Your task to perform on an android device: Clear the cart on amazon. Add "usb-c to usb-a" to the cart on amazon Image 0: 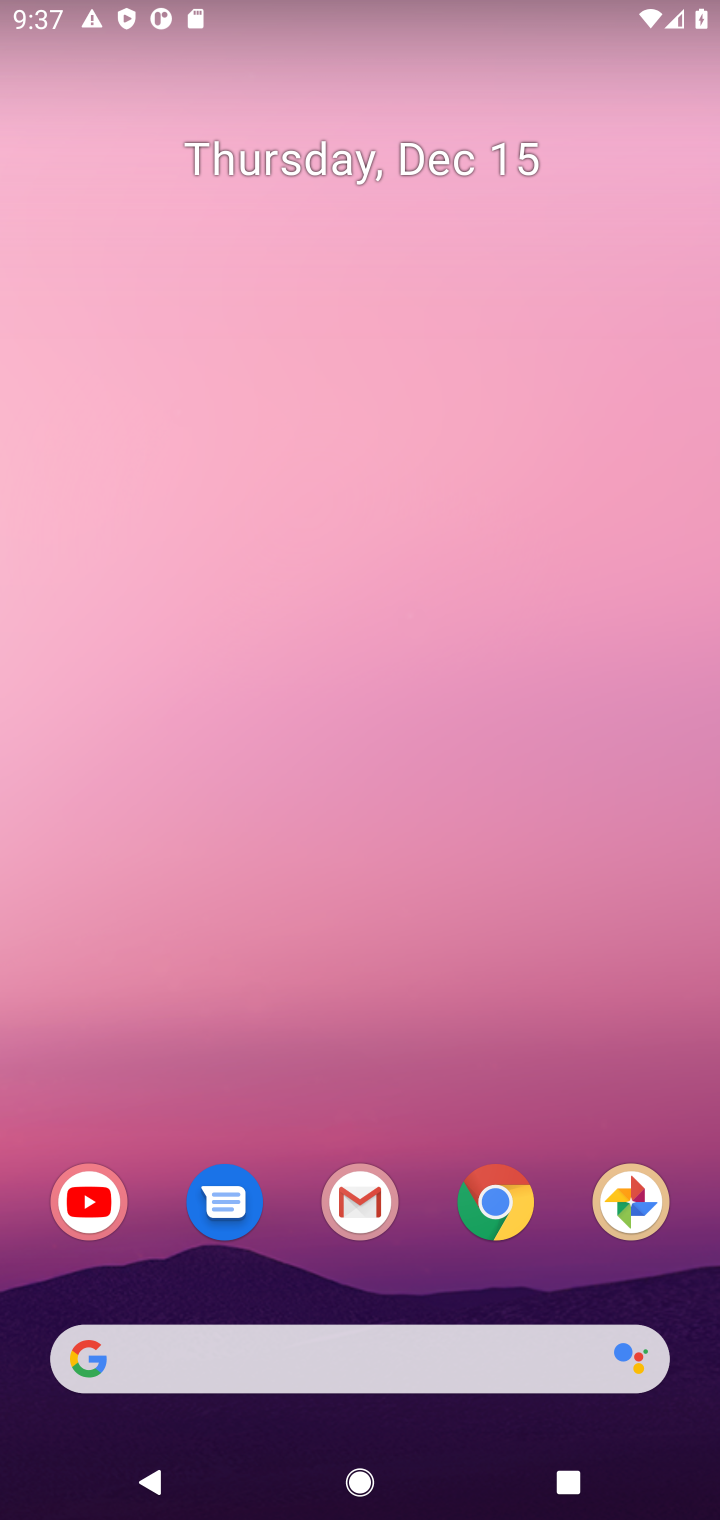
Step 0: click (496, 1209)
Your task to perform on an android device: Clear the cart on amazon. Add "usb-c to usb-a" to the cart on amazon Image 1: 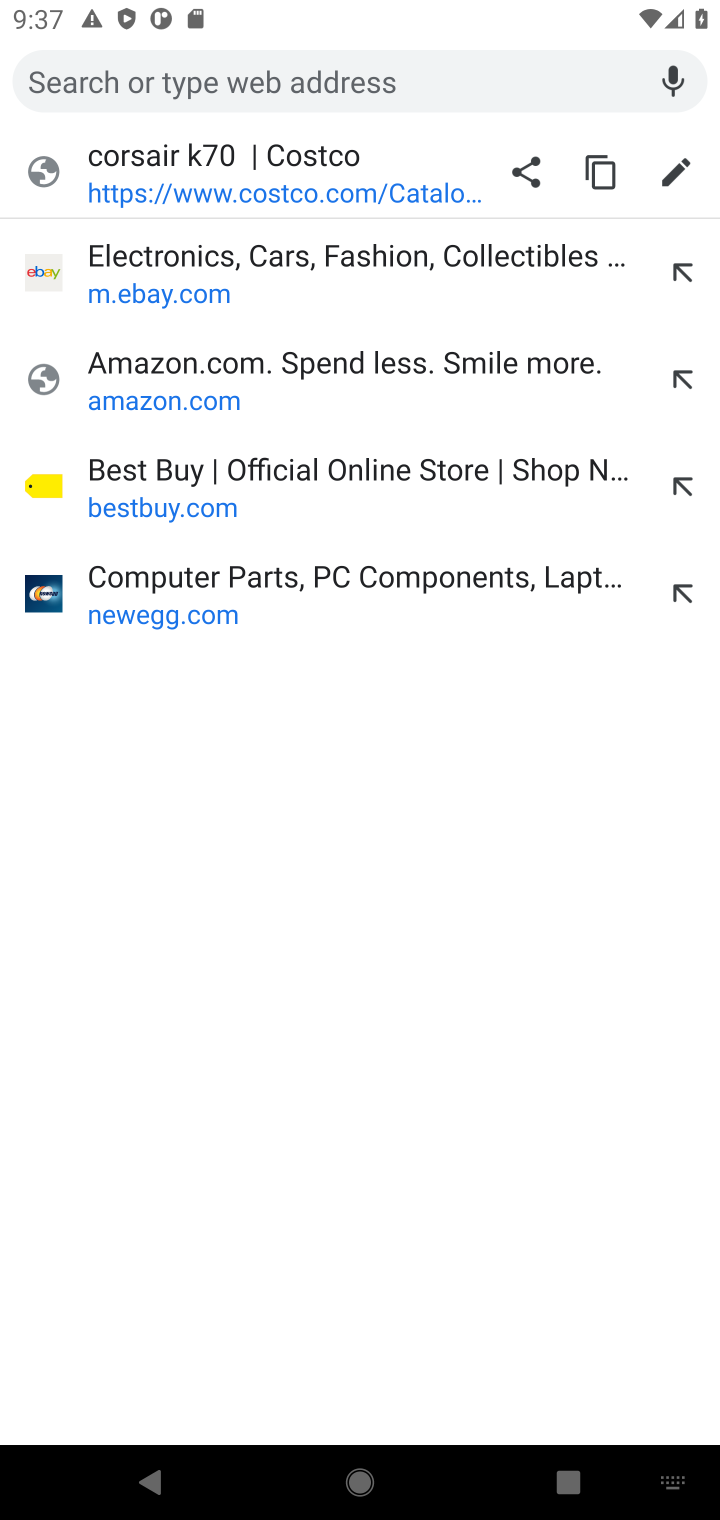
Step 1: click (139, 382)
Your task to perform on an android device: Clear the cart on amazon. Add "usb-c to usb-a" to the cart on amazon Image 2: 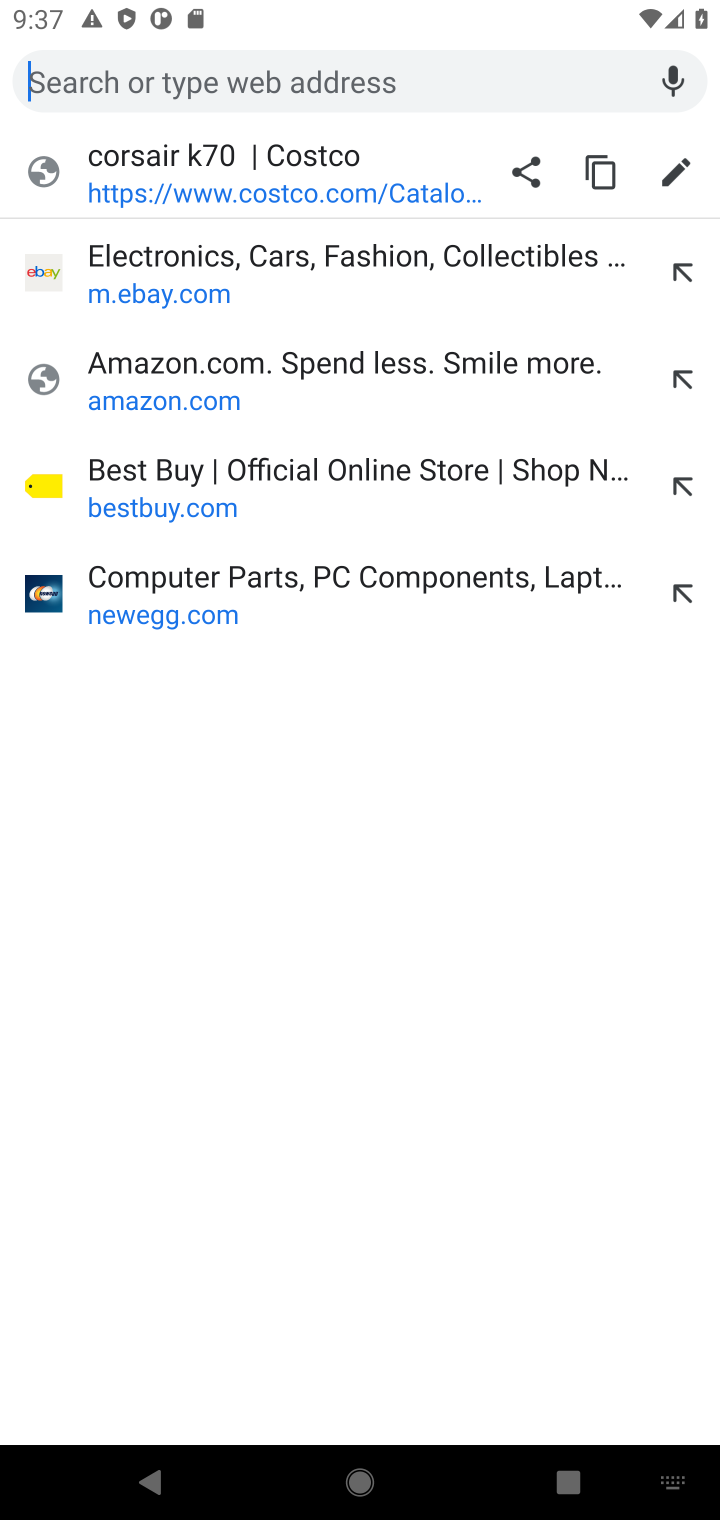
Step 2: click (141, 403)
Your task to perform on an android device: Clear the cart on amazon. Add "usb-c to usb-a" to the cart on amazon Image 3: 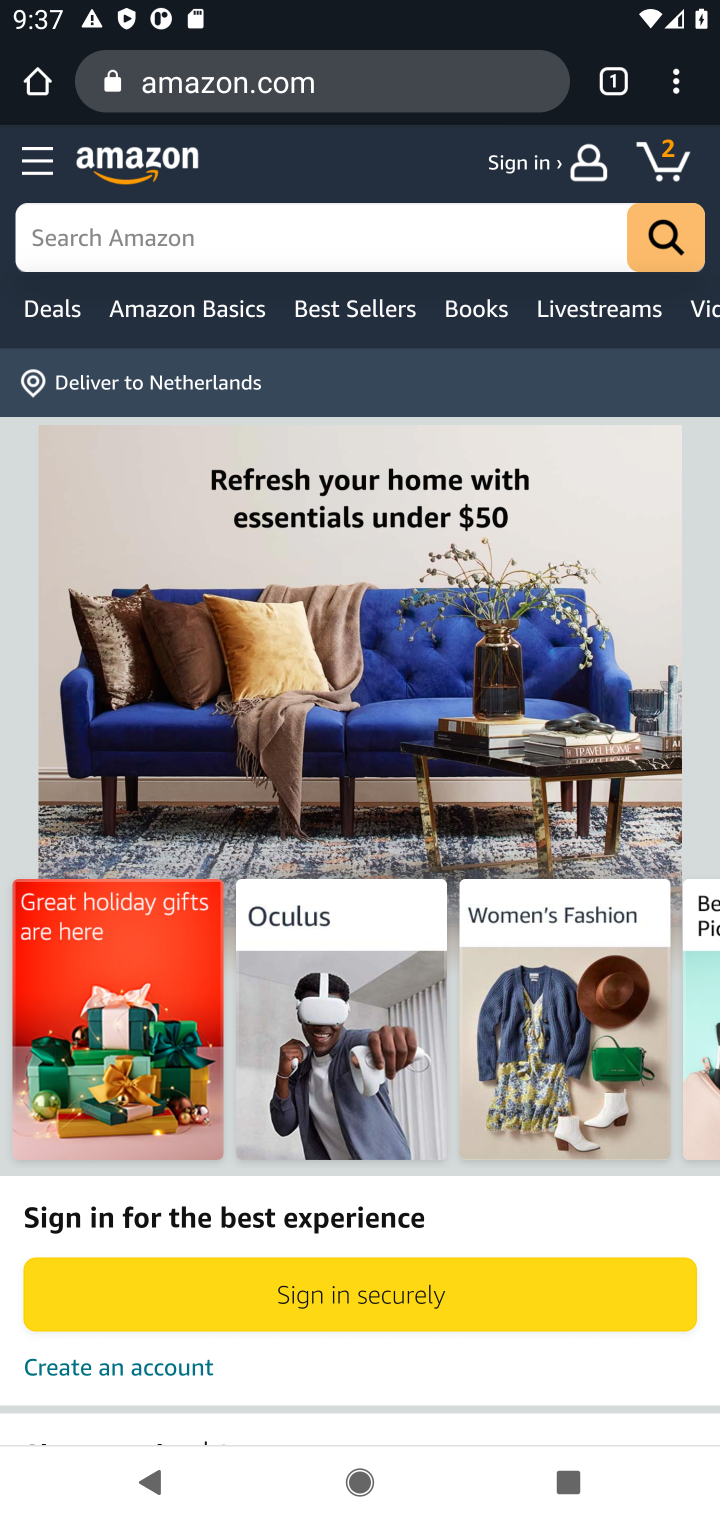
Step 3: click (660, 152)
Your task to perform on an android device: Clear the cart on amazon. Add "usb-c to usb-a" to the cart on amazon Image 4: 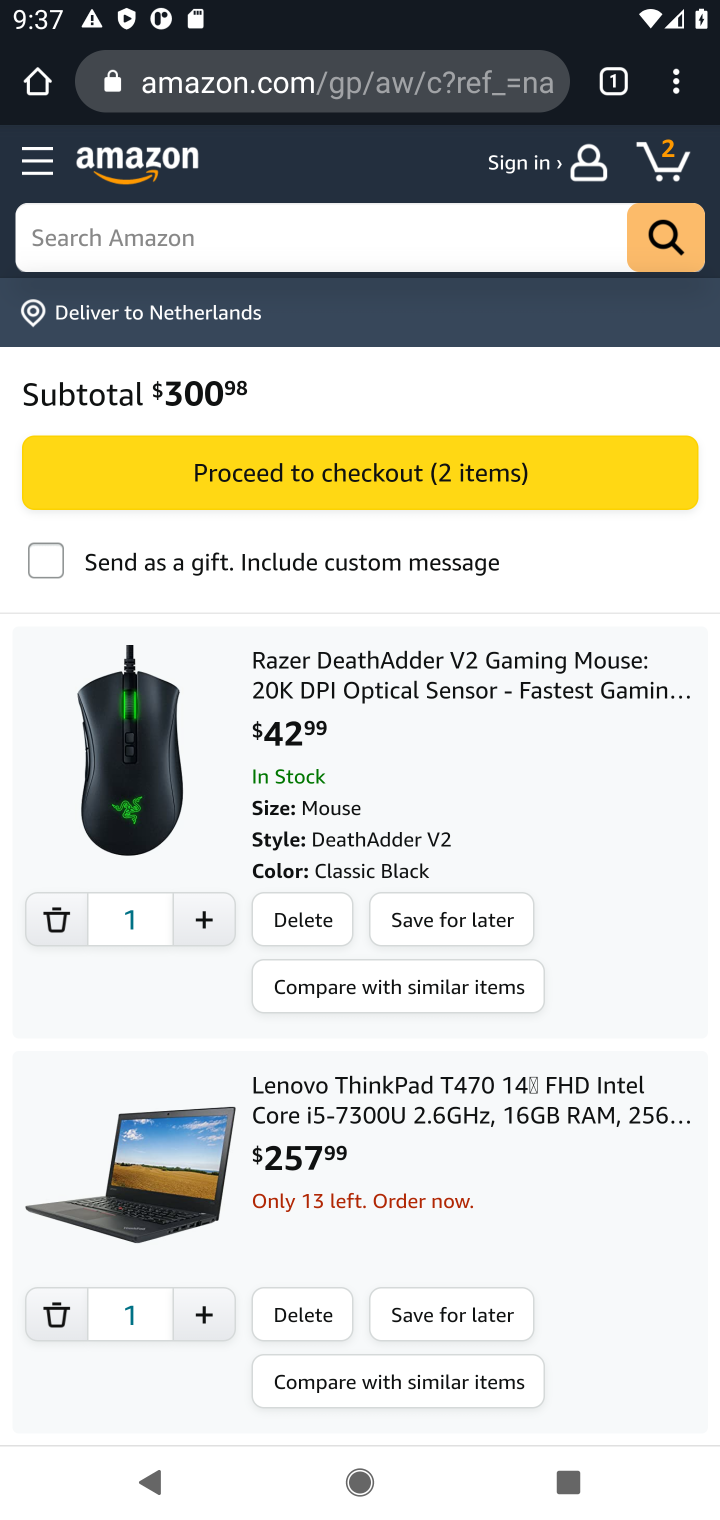
Step 4: click (315, 915)
Your task to perform on an android device: Clear the cart on amazon. Add "usb-c to usb-a" to the cart on amazon Image 5: 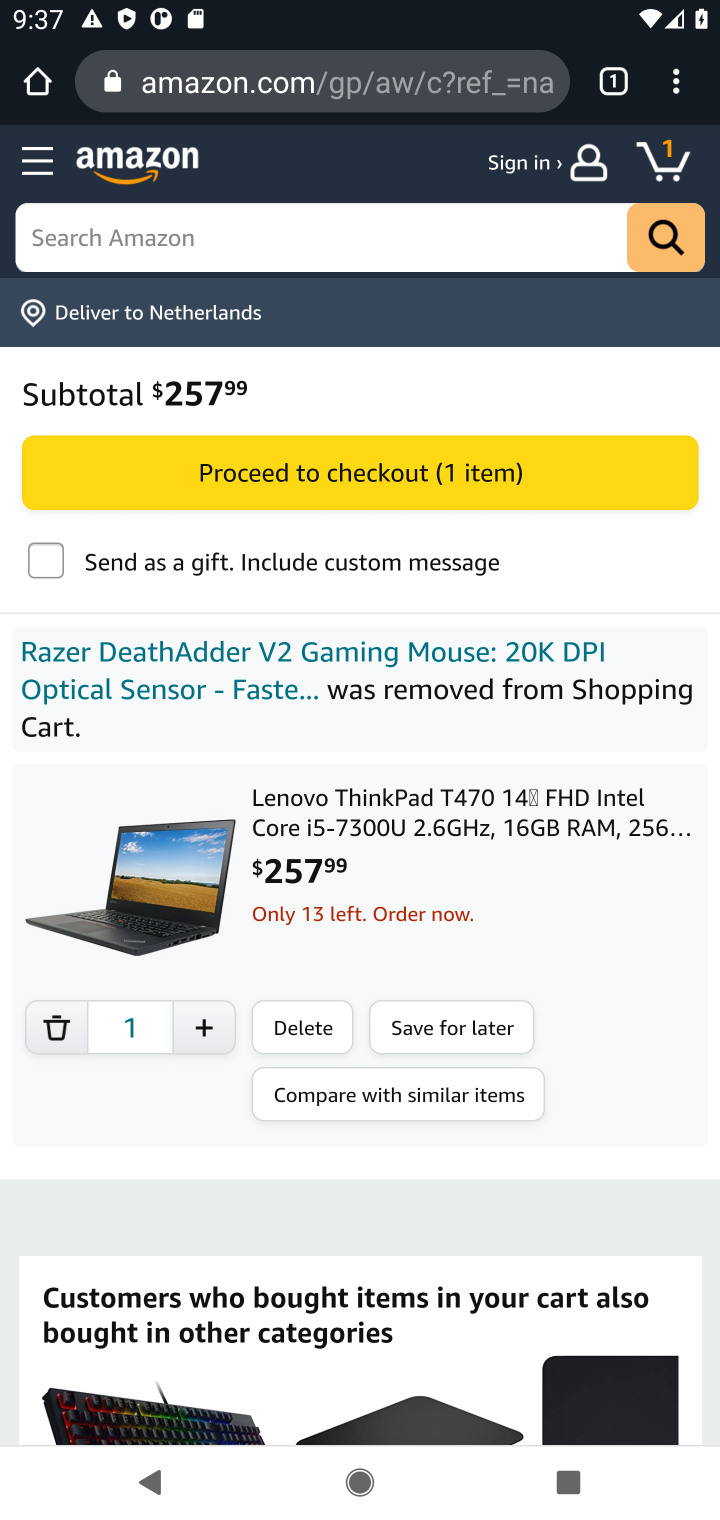
Step 5: click (304, 1022)
Your task to perform on an android device: Clear the cart on amazon. Add "usb-c to usb-a" to the cart on amazon Image 6: 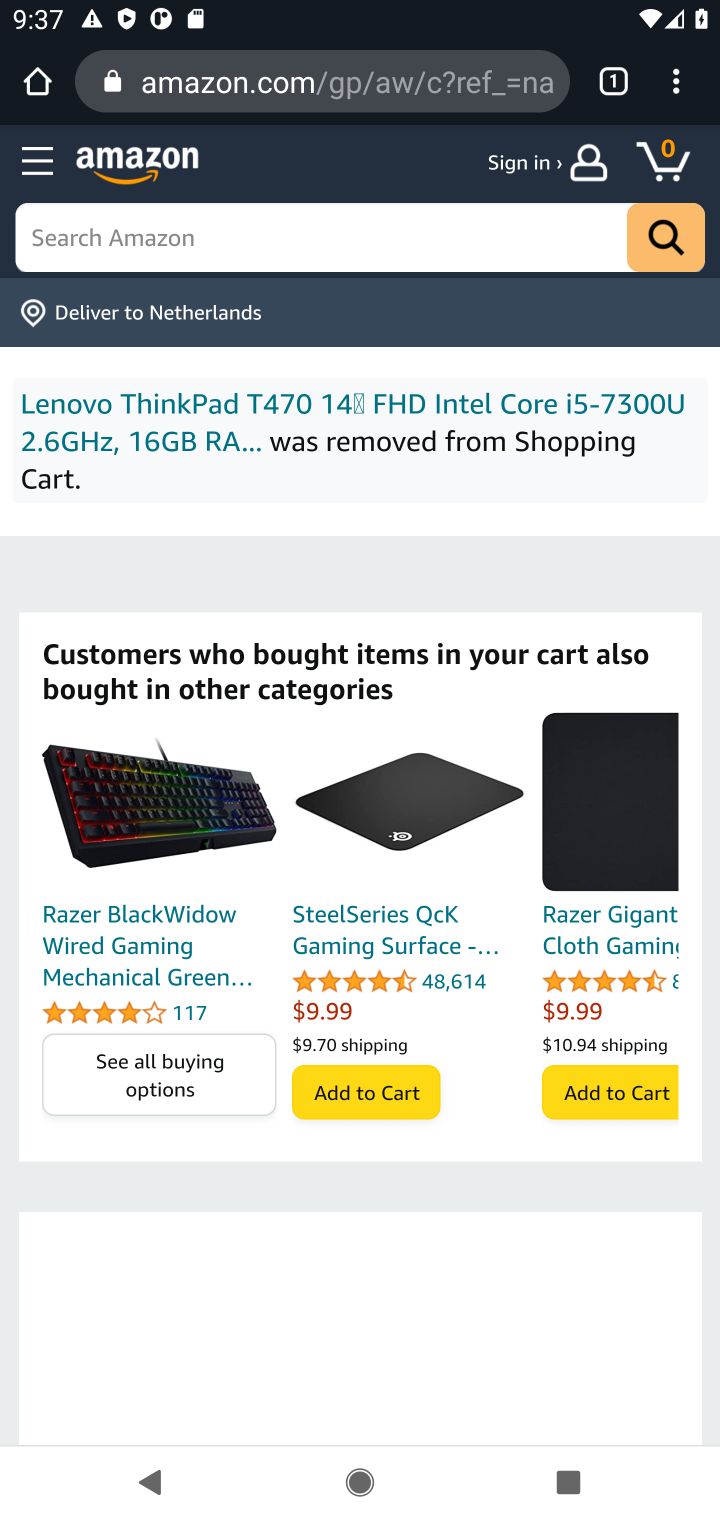
Step 6: click (269, 252)
Your task to perform on an android device: Clear the cart on amazon. Add "usb-c to usb-a" to the cart on amazon Image 7: 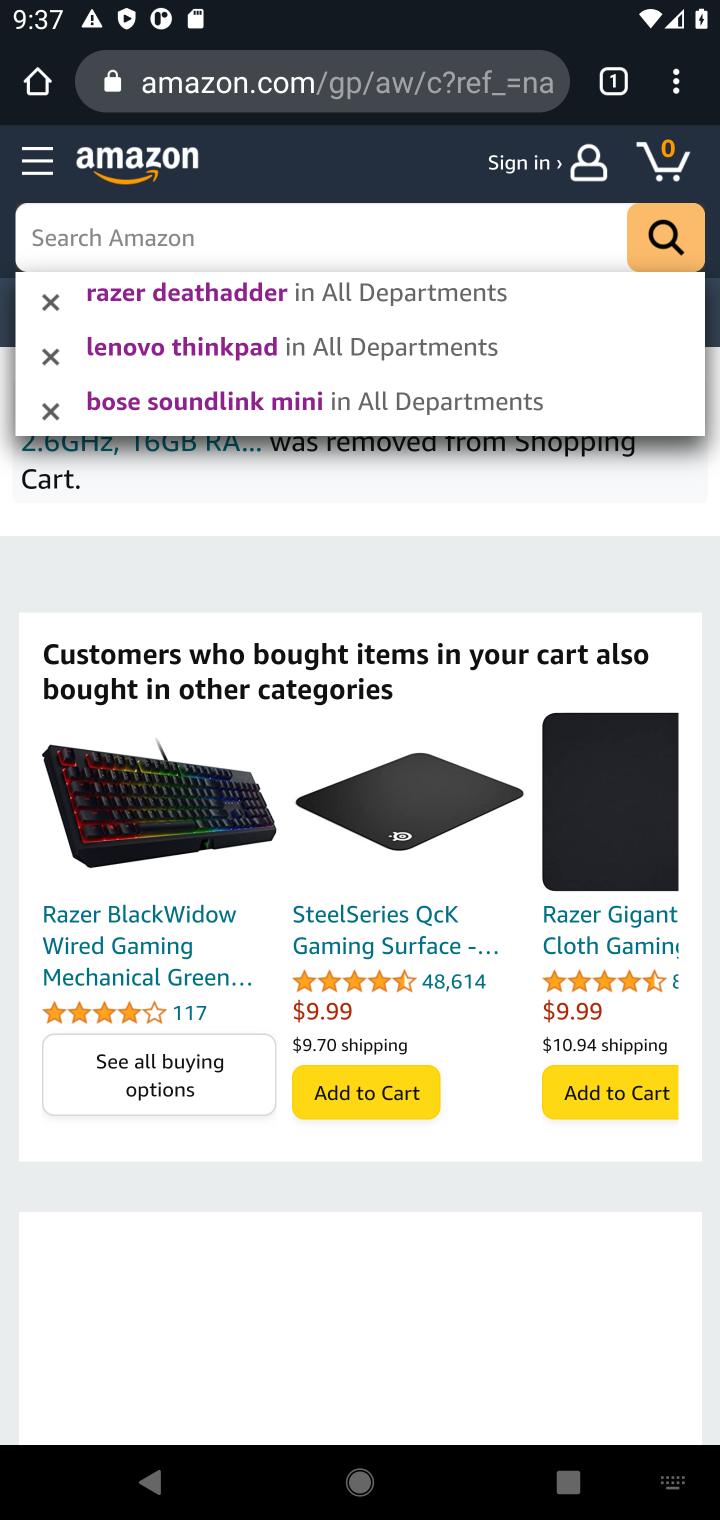
Step 7: type "usb-c to usb-a"
Your task to perform on an android device: Clear the cart on amazon. Add "usb-c to usb-a" to the cart on amazon Image 8: 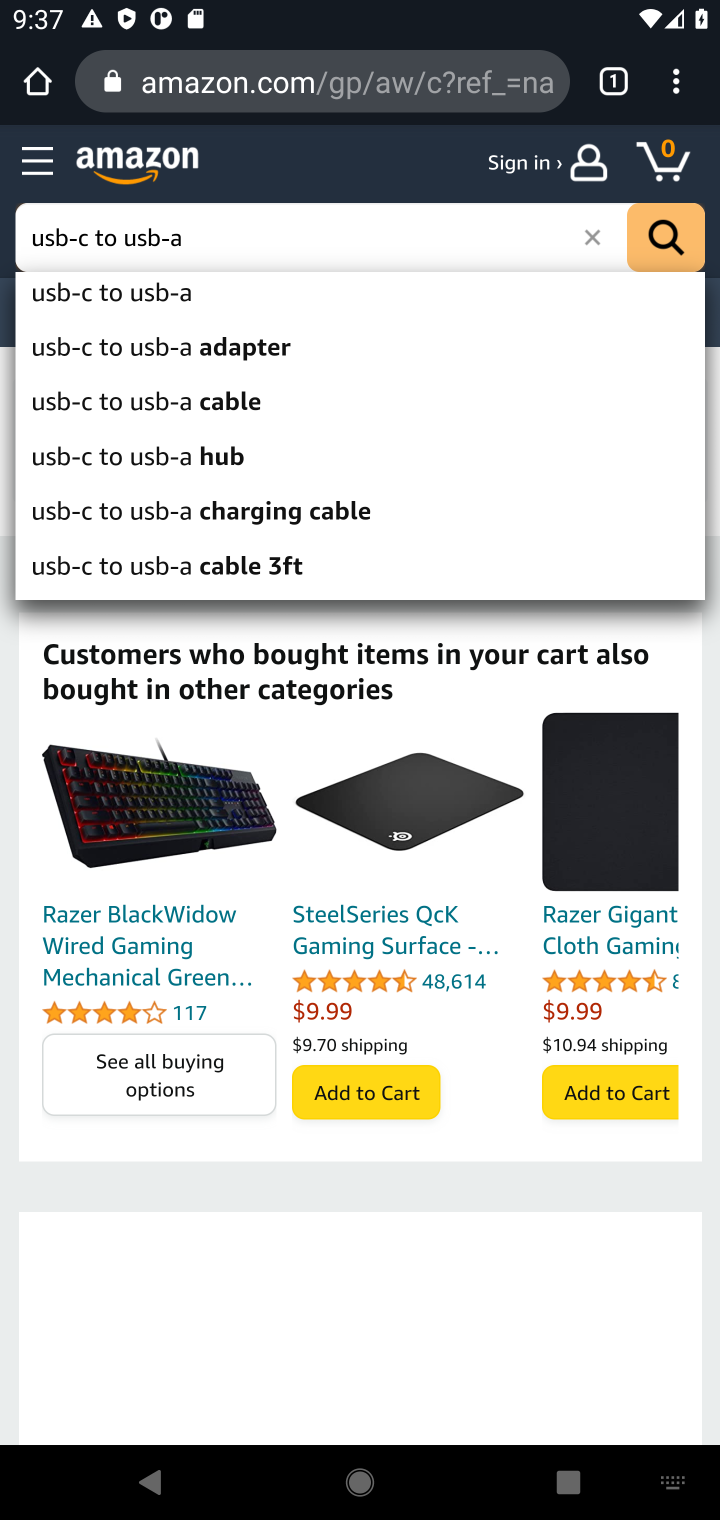
Step 8: click (113, 297)
Your task to perform on an android device: Clear the cart on amazon. Add "usb-c to usb-a" to the cart on amazon Image 9: 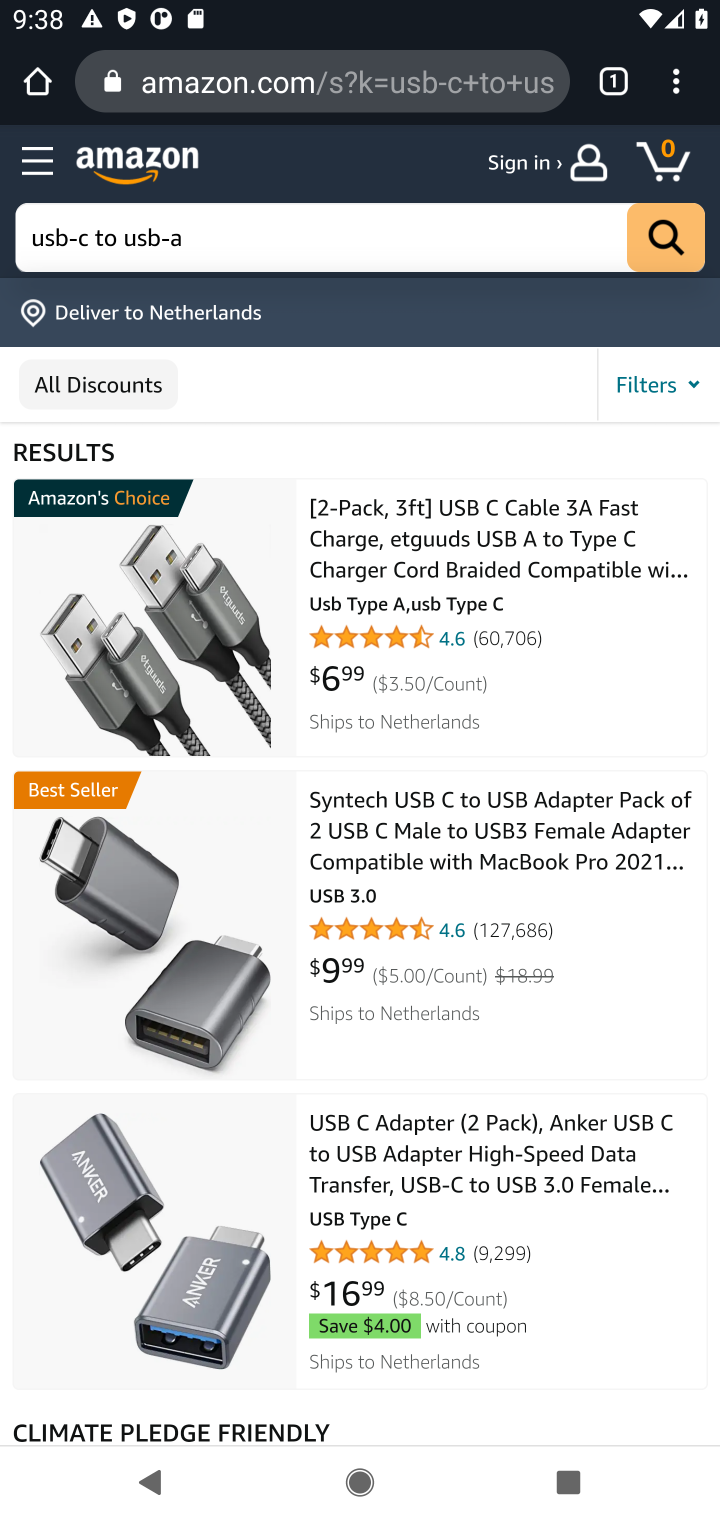
Step 9: drag from (456, 879) to (469, 639)
Your task to perform on an android device: Clear the cart on amazon. Add "usb-c to usb-a" to the cart on amazon Image 10: 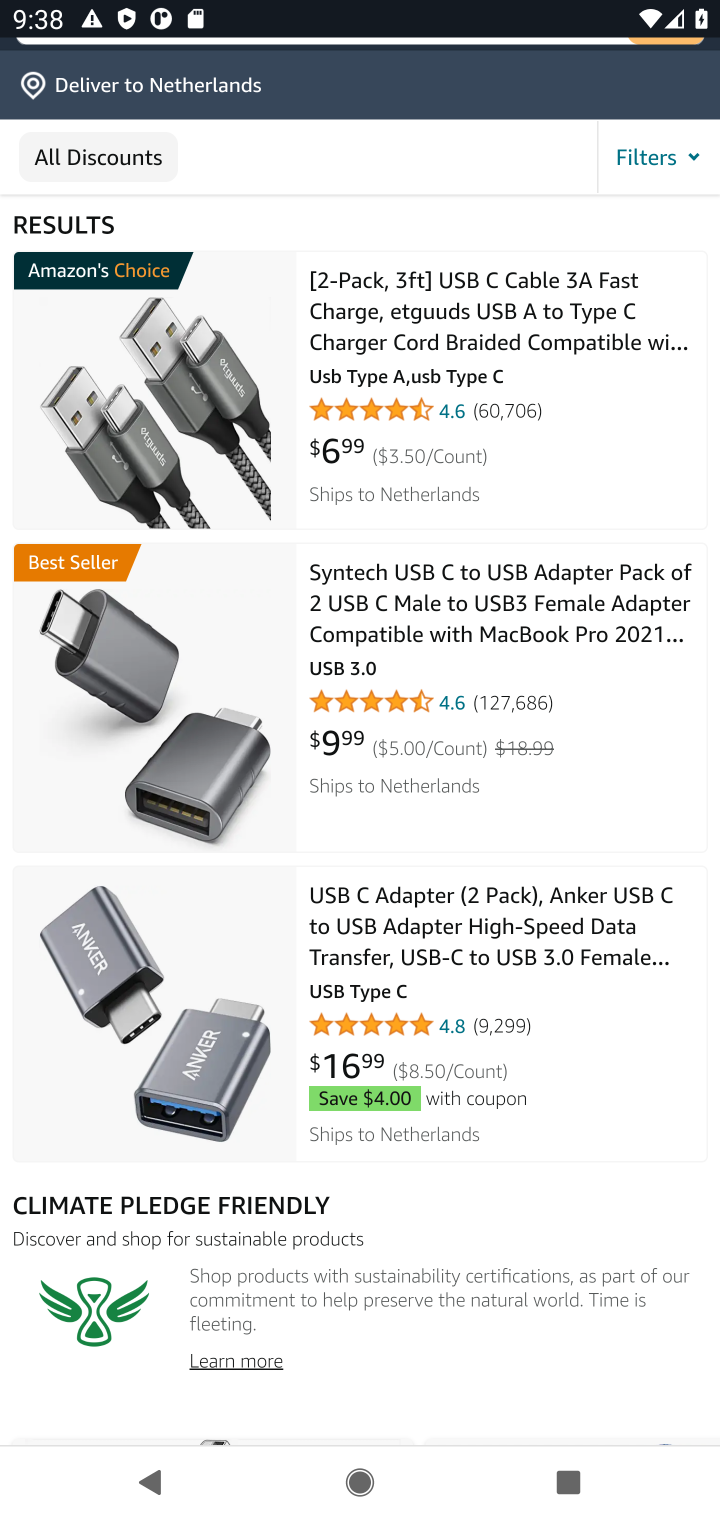
Step 10: drag from (467, 1024) to (461, 487)
Your task to perform on an android device: Clear the cart on amazon. Add "usb-c to usb-a" to the cart on amazon Image 11: 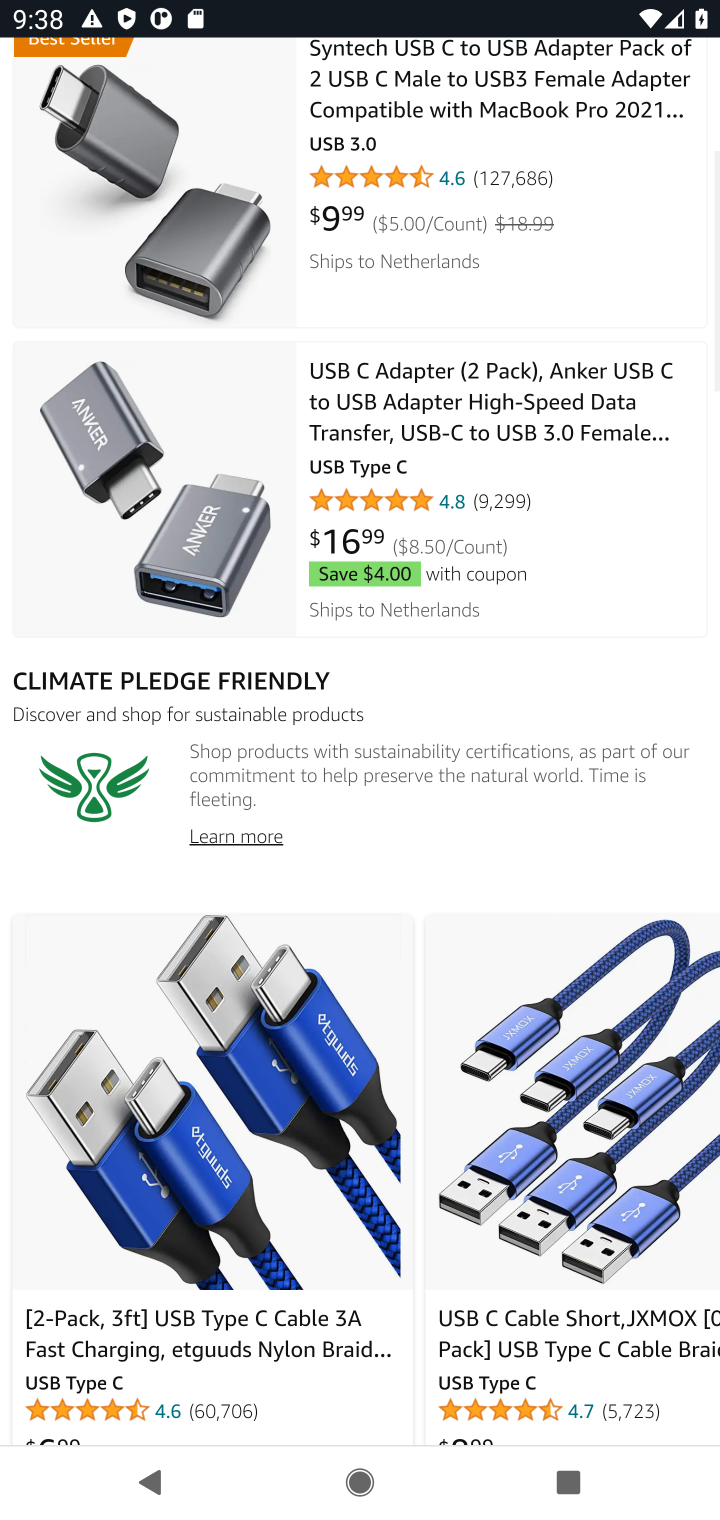
Step 11: drag from (401, 928) to (391, 410)
Your task to perform on an android device: Clear the cart on amazon. Add "usb-c to usb-a" to the cart on amazon Image 12: 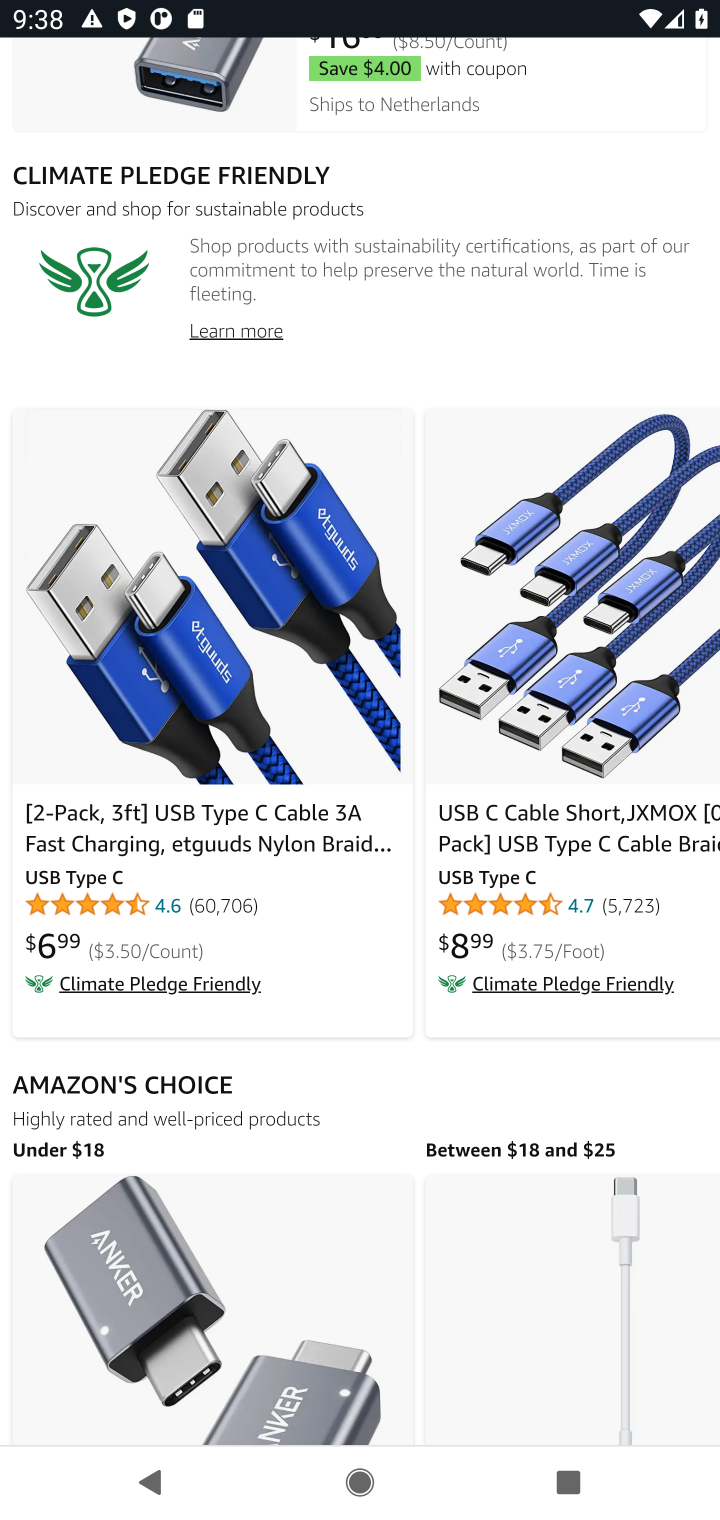
Step 12: drag from (348, 1109) to (378, 664)
Your task to perform on an android device: Clear the cart on amazon. Add "usb-c to usb-a" to the cart on amazon Image 13: 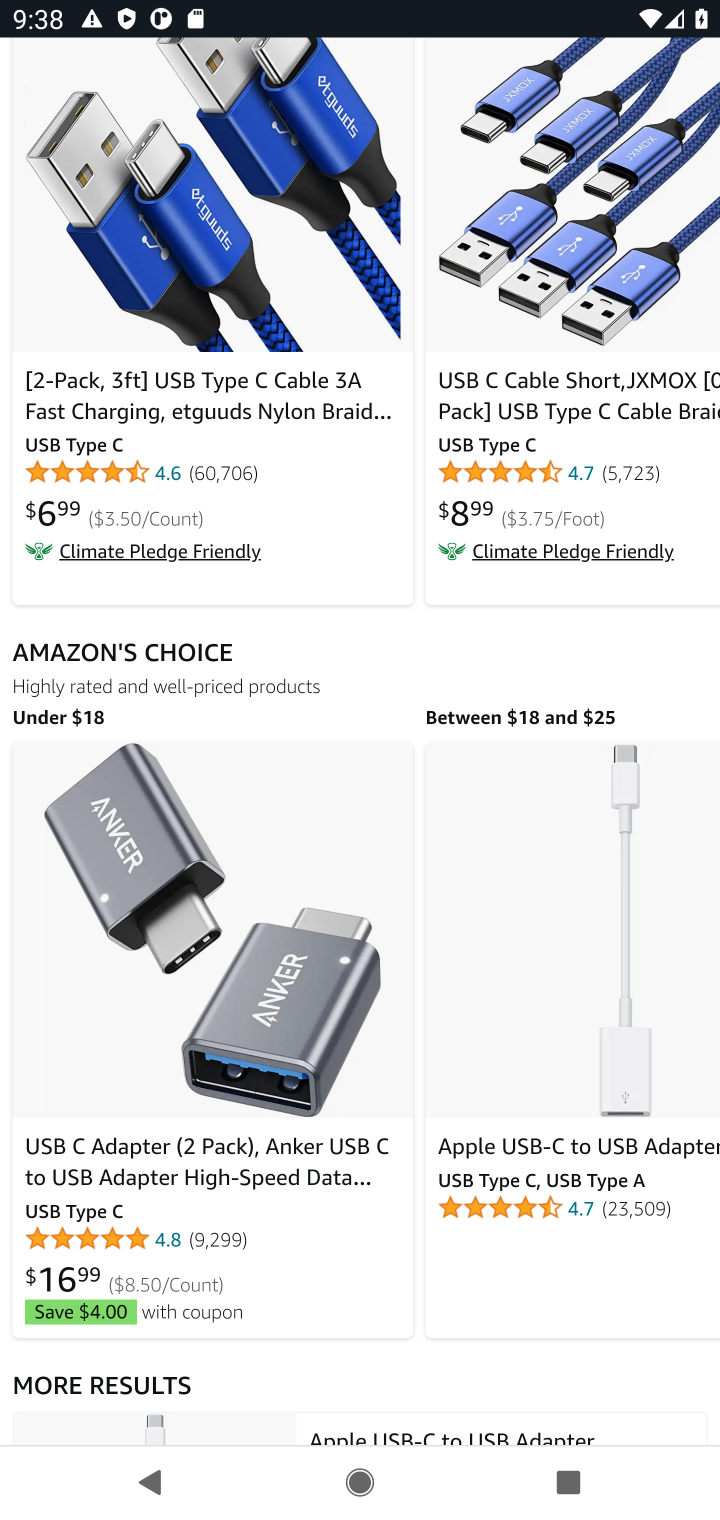
Step 13: drag from (397, 1233) to (433, 731)
Your task to perform on an android device: Clear the cart on amazon. Add "usb-c to usb-a" to the cart on amazon Image 14: 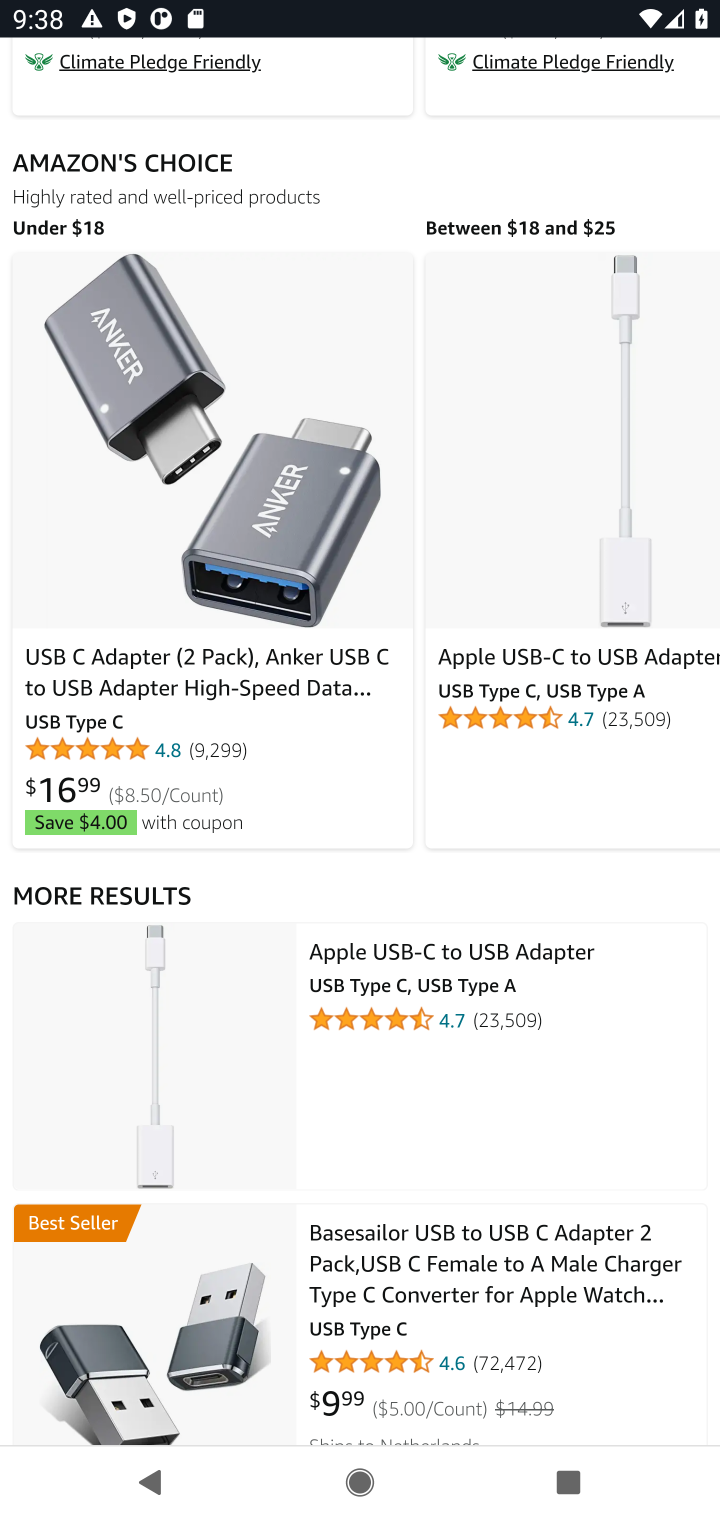
Step 14: drag from (395, 692) to (379, 1319)
Your task to perform on an android device: Clear the cart on amazon. Add "usb-c to usb-a" to the cart on amazon Image 15: 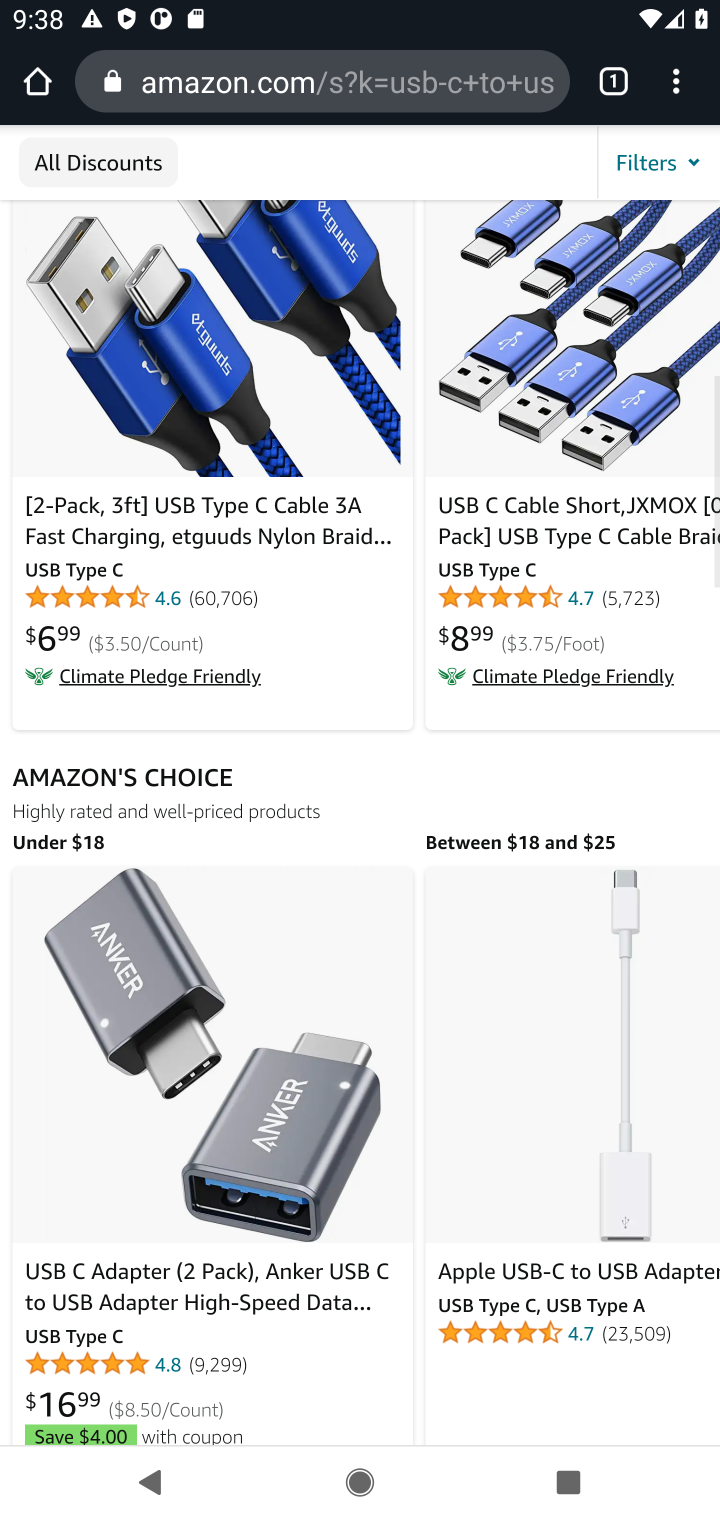
Step 15: drag from (385, 504) to (349, 1214)
Your task to perform on an android device: Clear the cart on amazon. Add "usb-c to usb-a" to the cart on amazon Image 16: 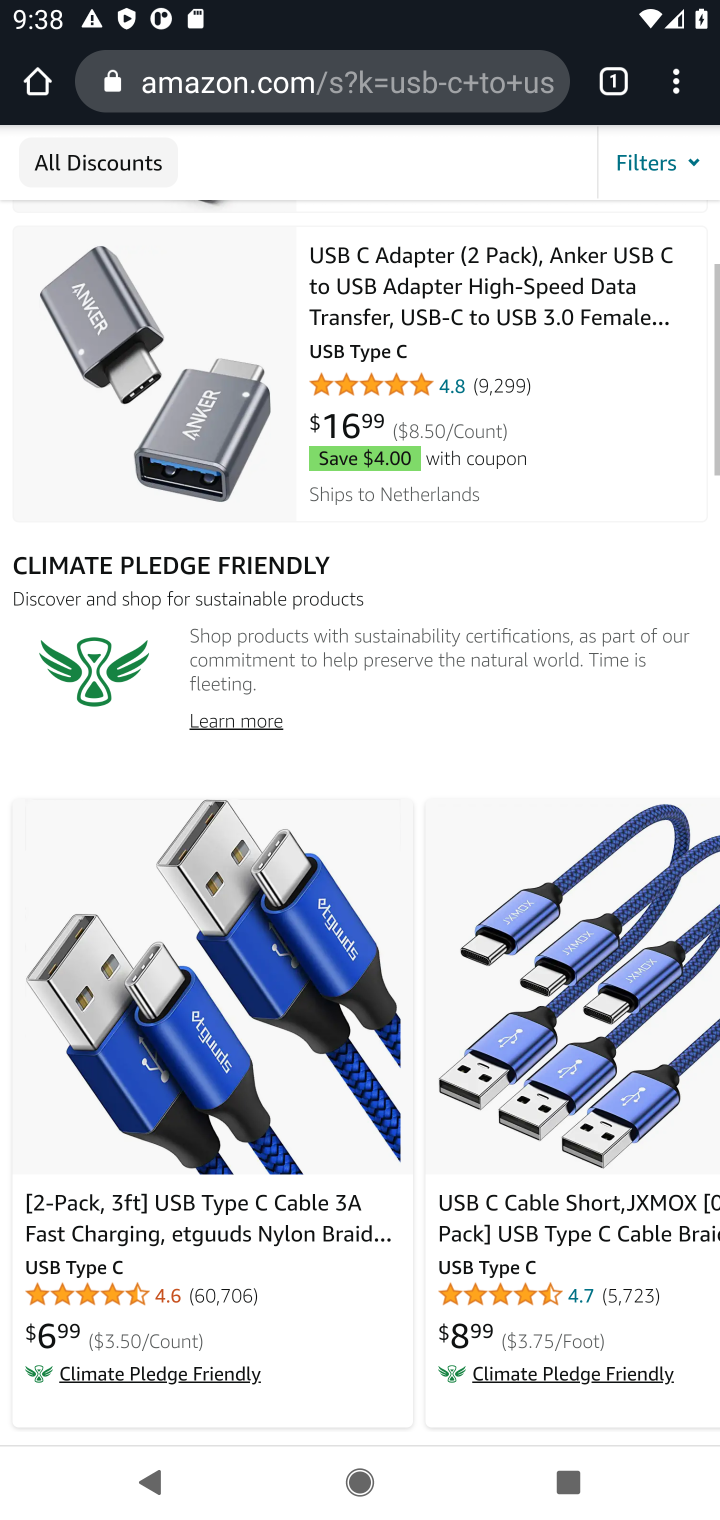
Step 16: drag from (357, 368) to (336, 1336)
Your task to perform on an android device: Clear the cart on amazon. Add "usb-c to usb-a" to the cart on amazon Image 17: 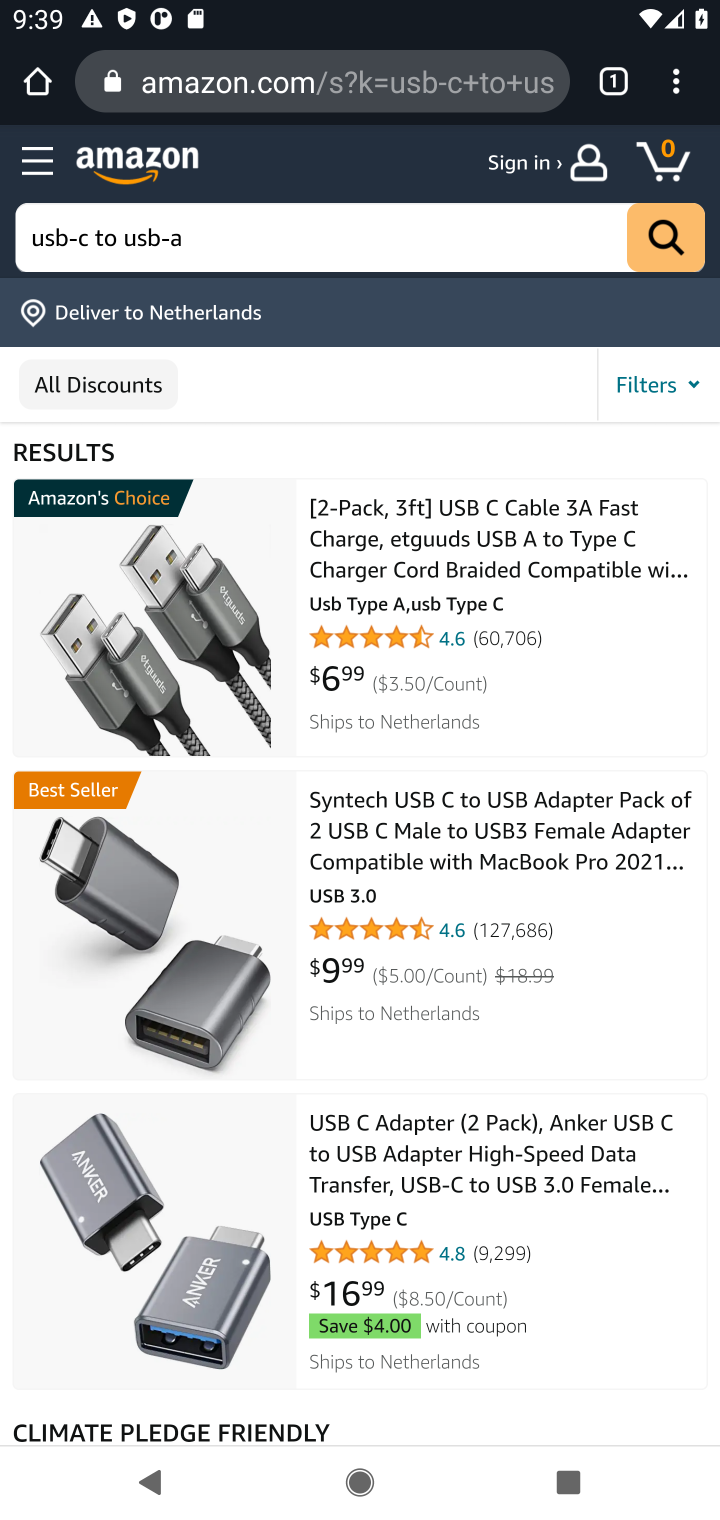
Step 17: drag from (412, 1215) to (412, 753)
Your task to perform on an android device: Clear the cart on amazon. Add "usb-c to usb-a" to the cart on amazon Image 18: 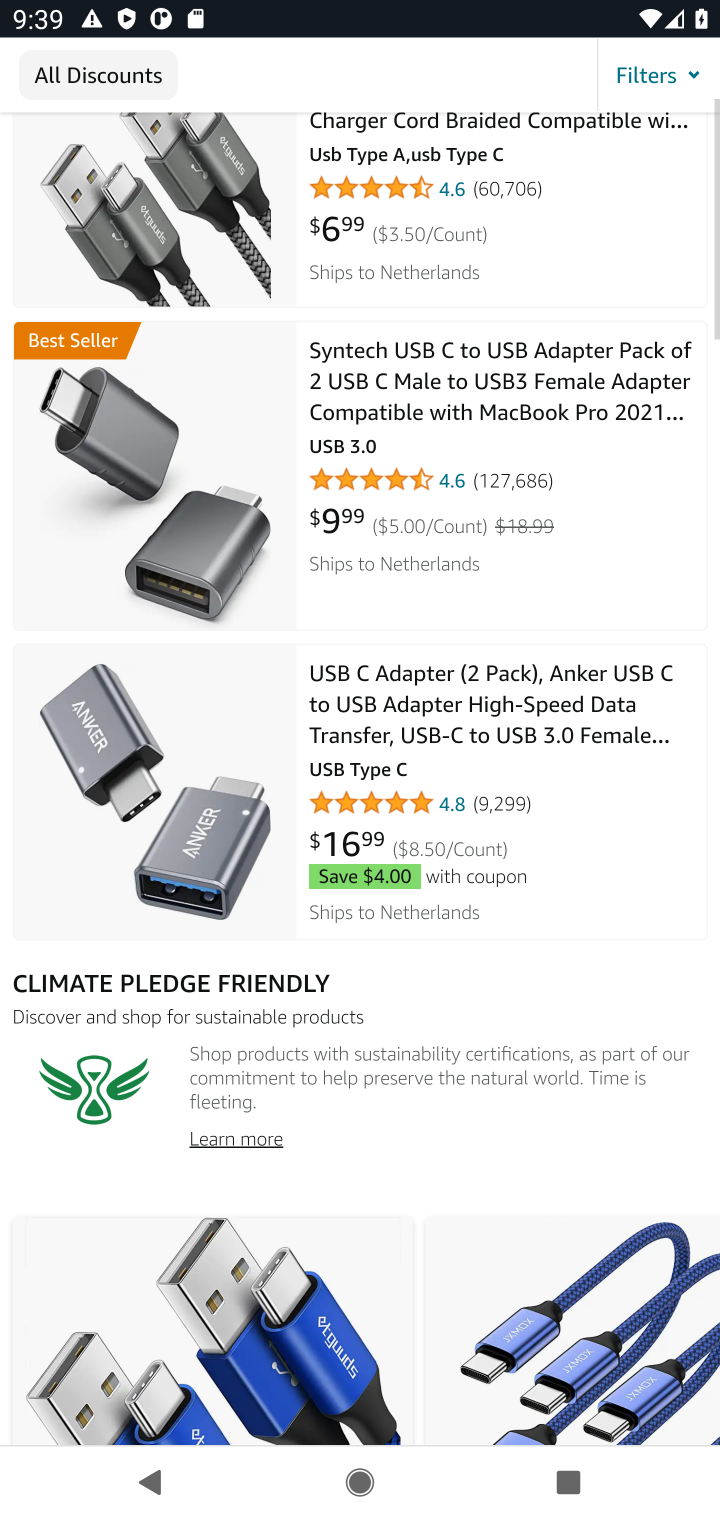
Step 18: drag from (361, 1149) to (388, 691)
Your task to perform on an android device: Clear the cart on amazon. Add "usb-c to usb-a" to the cart on amazon Image 19: 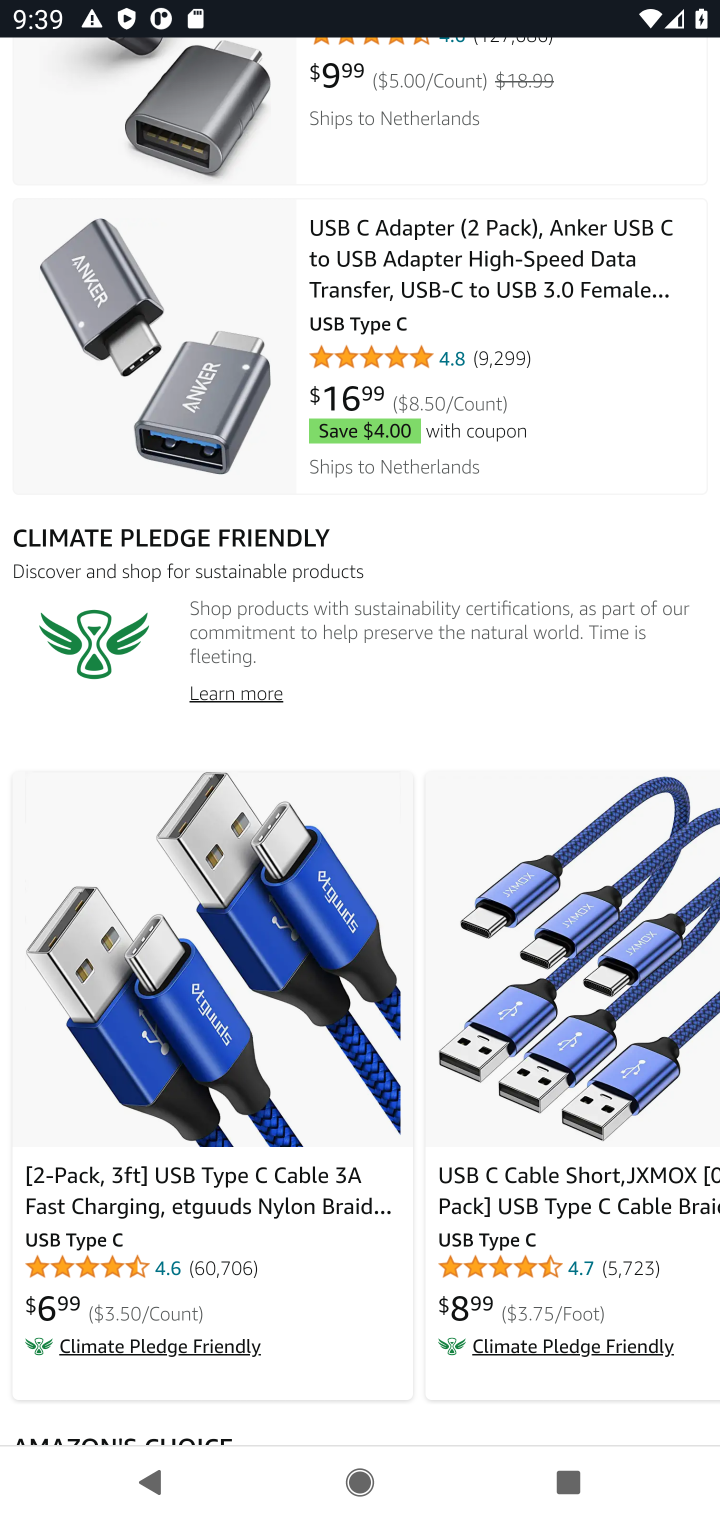
Step 19: drag from (358, 1253) to (426, 693)
Your task to perform on an android device: Clear the cart on amazon. Add "usb-c to usb-a" to the cart on amazon Image 20: 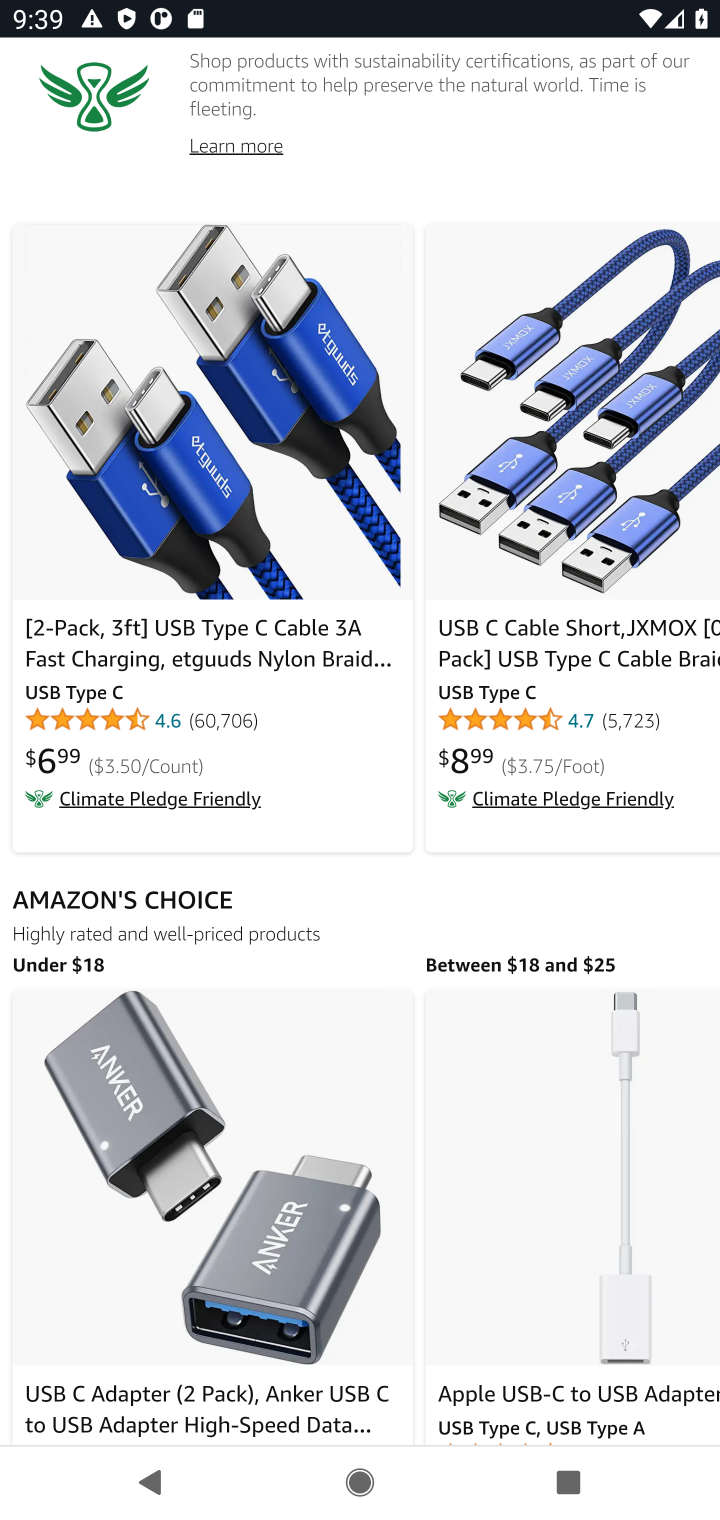
Step 20: drag from (367, 1035) to (371, 625)
Your task to perform on an android device: Clear the cart on amazon. Add "usb-c to usb-a" to the cart on amazon Image 21: 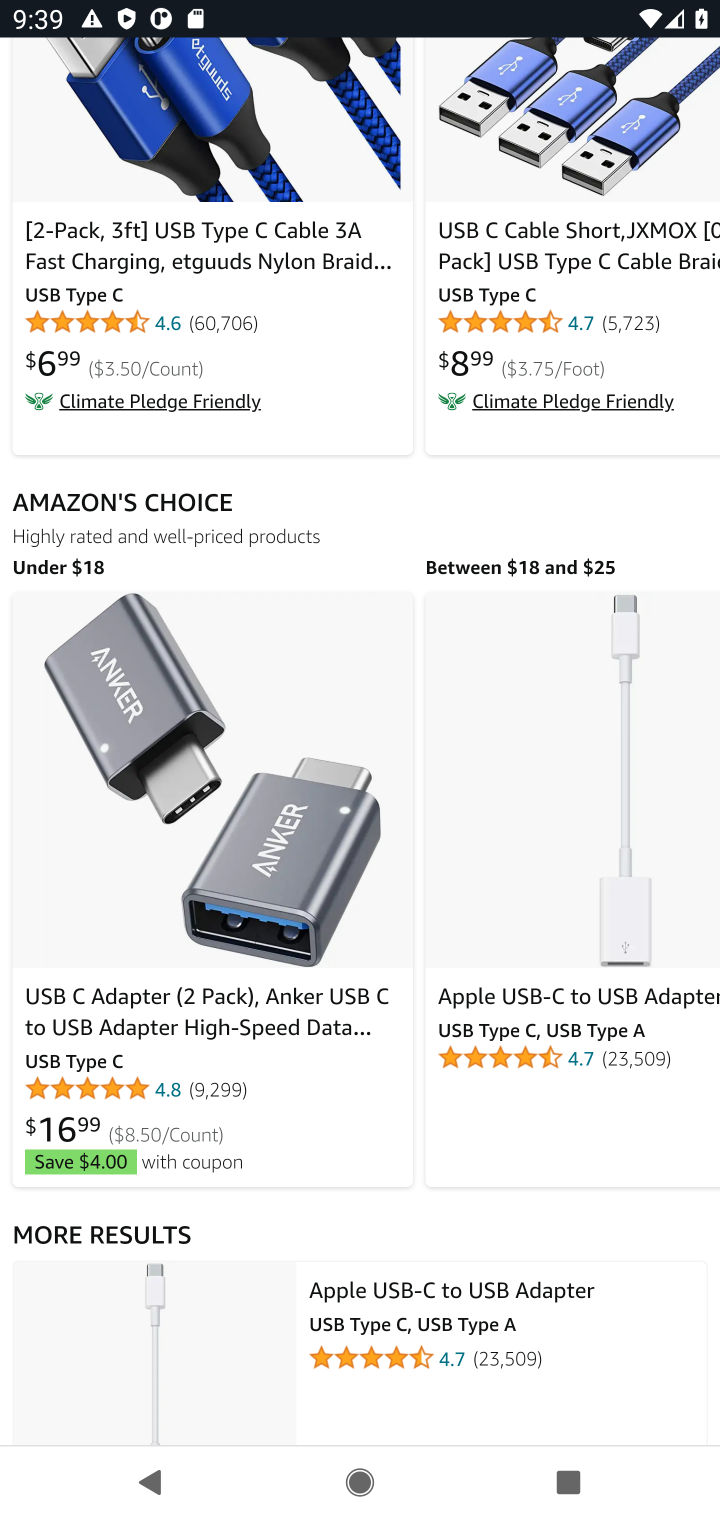
Step 21: drag from (403, 1103) to (403, 631)
Your task to perform on an android device: Clear the cart on amazon. Add "usb-c to usb-a" to the cart on amazon Image 22: 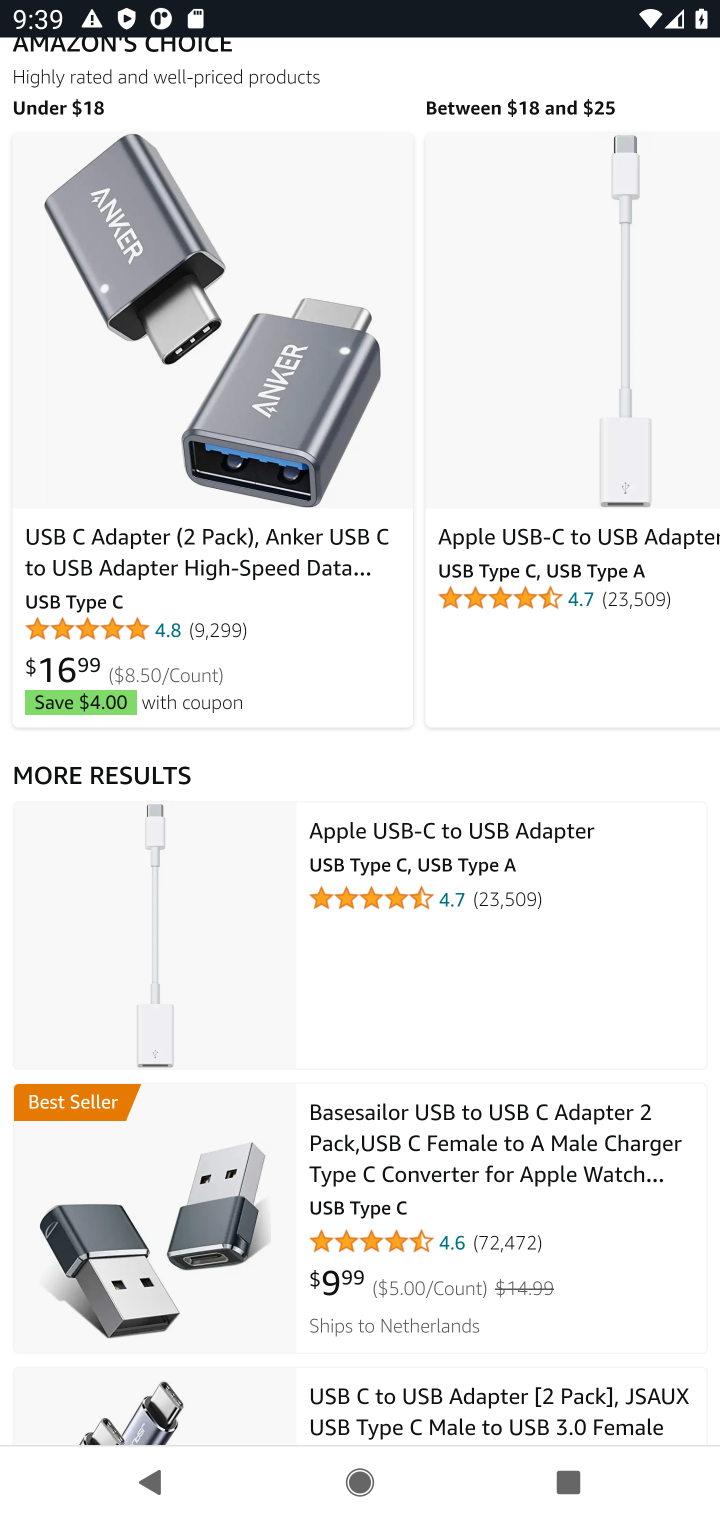
Step 22: drag from (444, 1215) to (447, 642)
Your task to perform on an android device: Clear the cart on amazon. Add "usb-c to usb-a" to the cart on amazon Image 23: 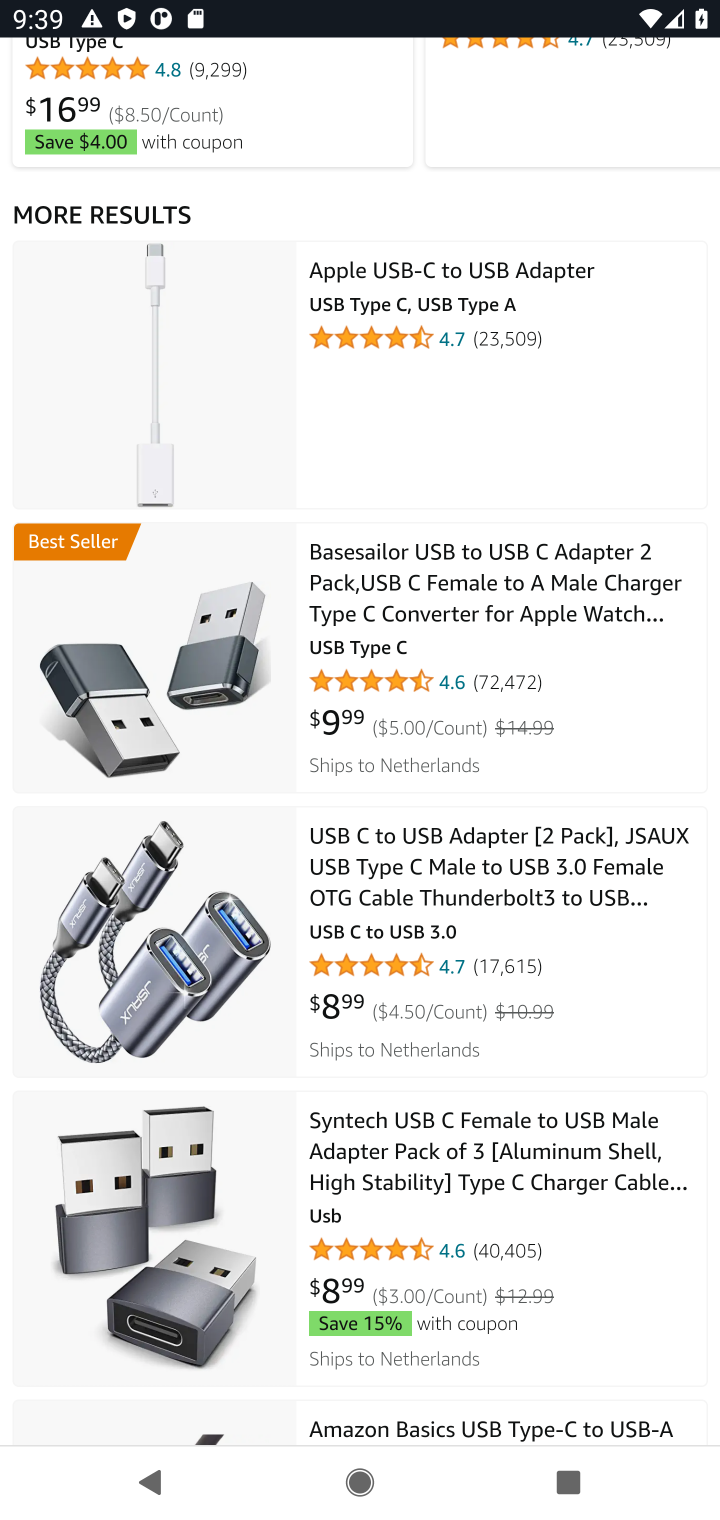
Step 23: drag from (437, 1214) to (463, 571)
Your task to perform on an android device: Clear the cart on amazon. Add "usb-c to usb-a" to the cart on amazon Image 24: 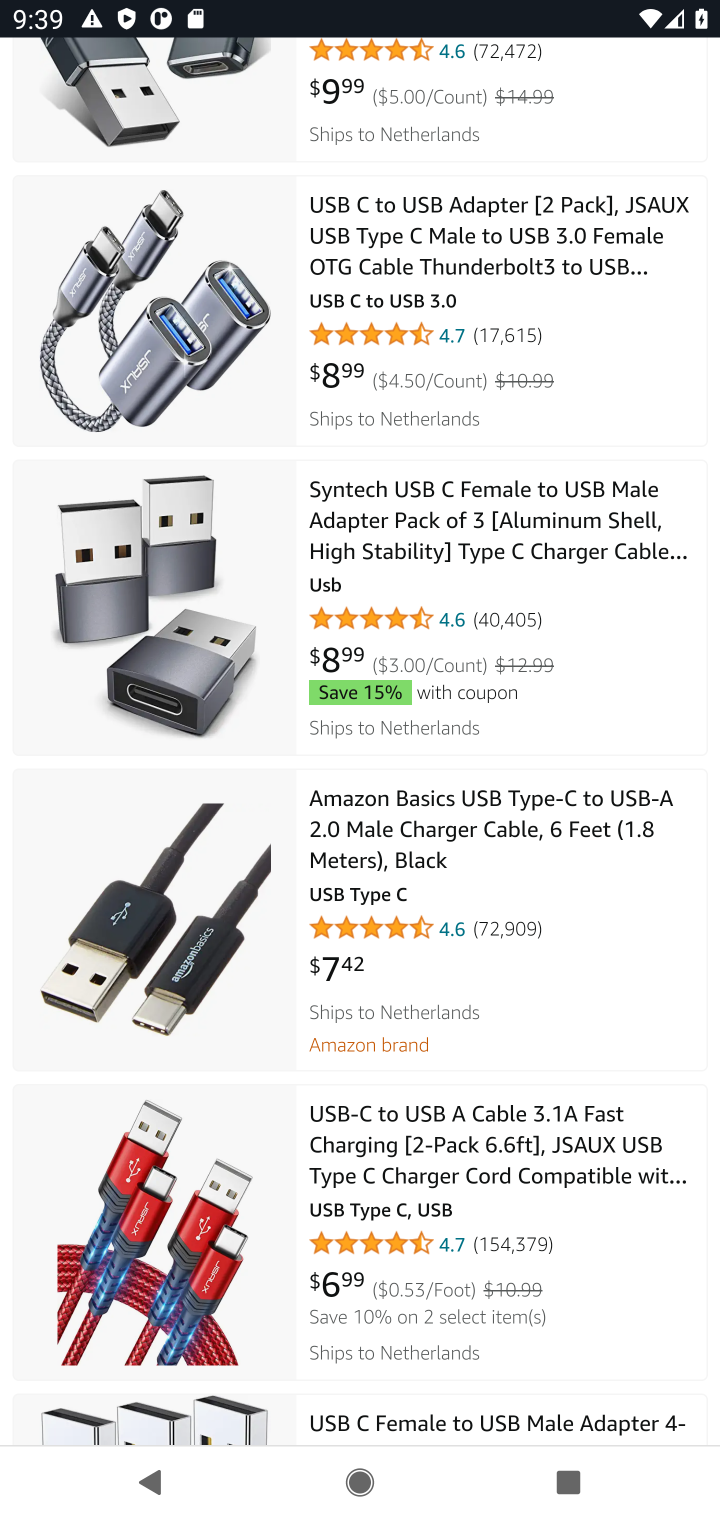
Step 24: click (397, 839)
Your task to perform on an android device: Clear the cart on amazon. Add "usb-c to usb-a" to the cart on amazon Image 25: 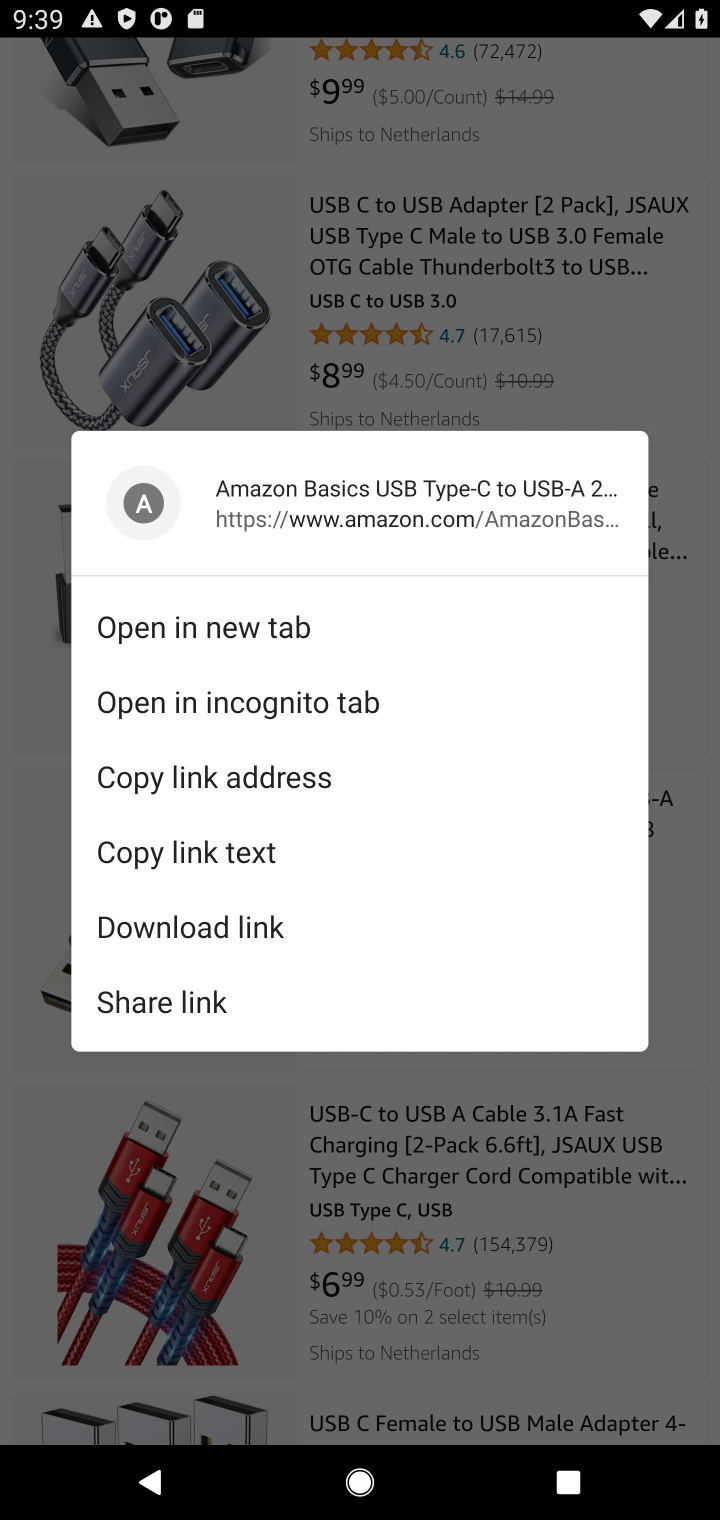
Step 25: click (675, 819)
Your task to perform on an android device: Clear the cart on amazon. Add "usb-c to usb-a" to the cart on amazon Image 26: 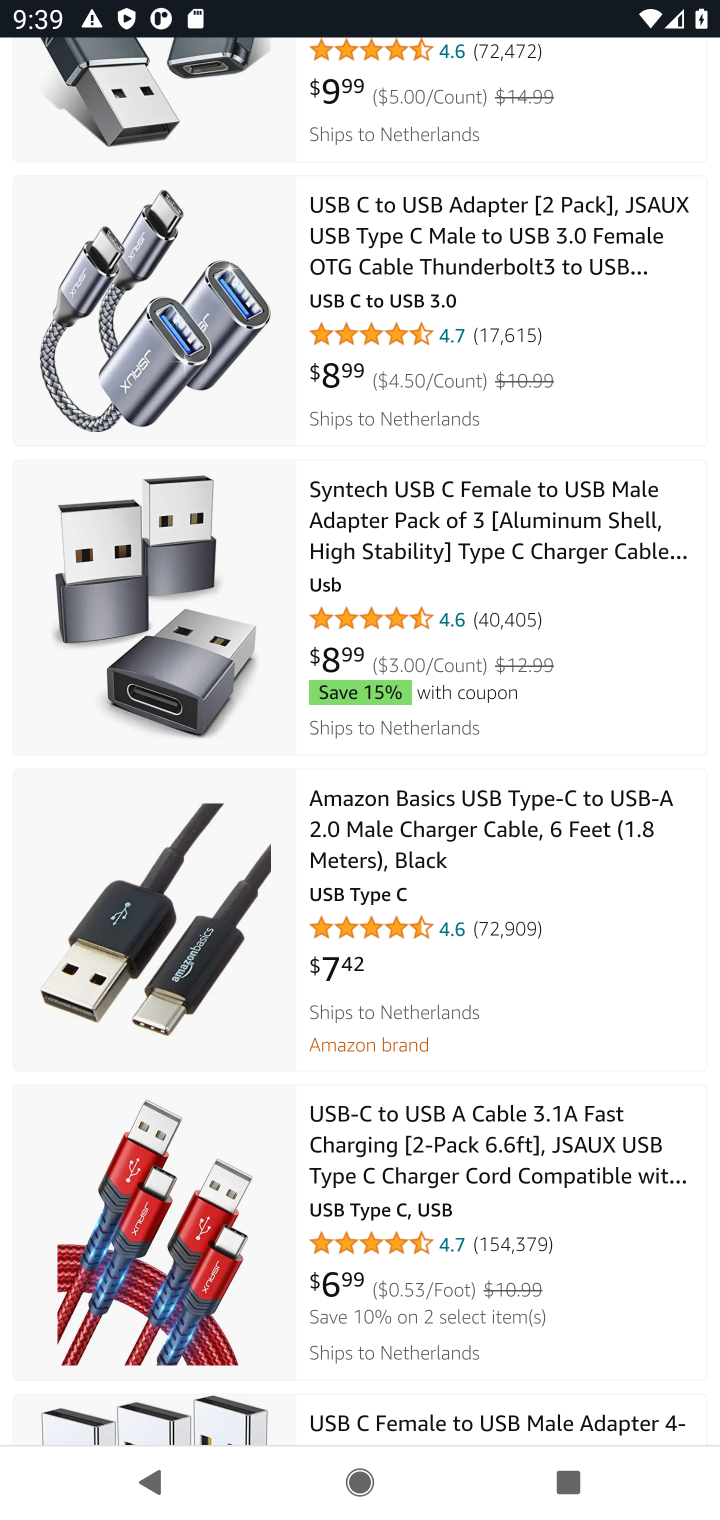
Step 26: click (384, 842)
Your task to perform on an android device: Clear the cart on amazon. Add "usb-c to usb-a" to the cart on amazon Image 27: 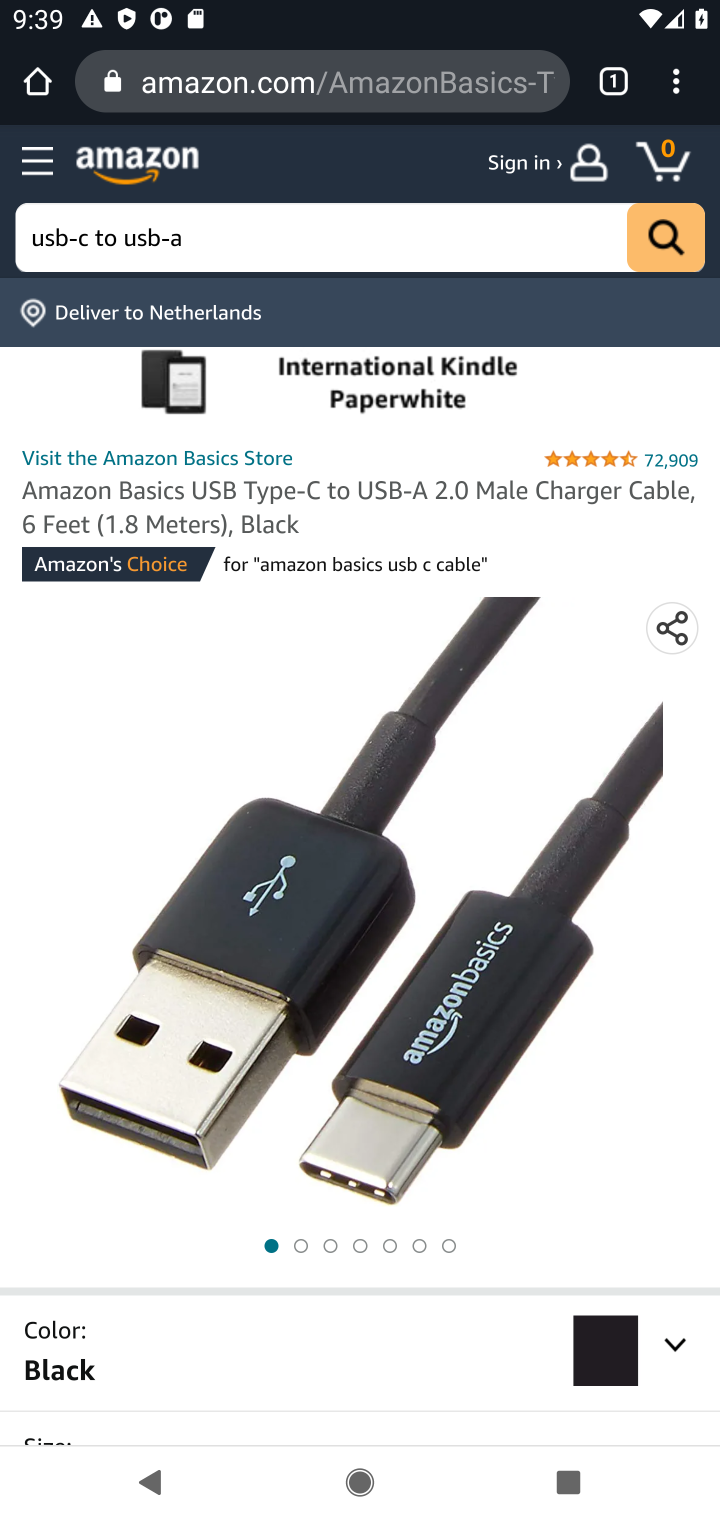
Step 27: drag from (373, 827) to (407, 115)
Your task to perform on an android device: Clear the cart on amazon. Add "usb-c to usb-a" to the cart on amazon Image 28: 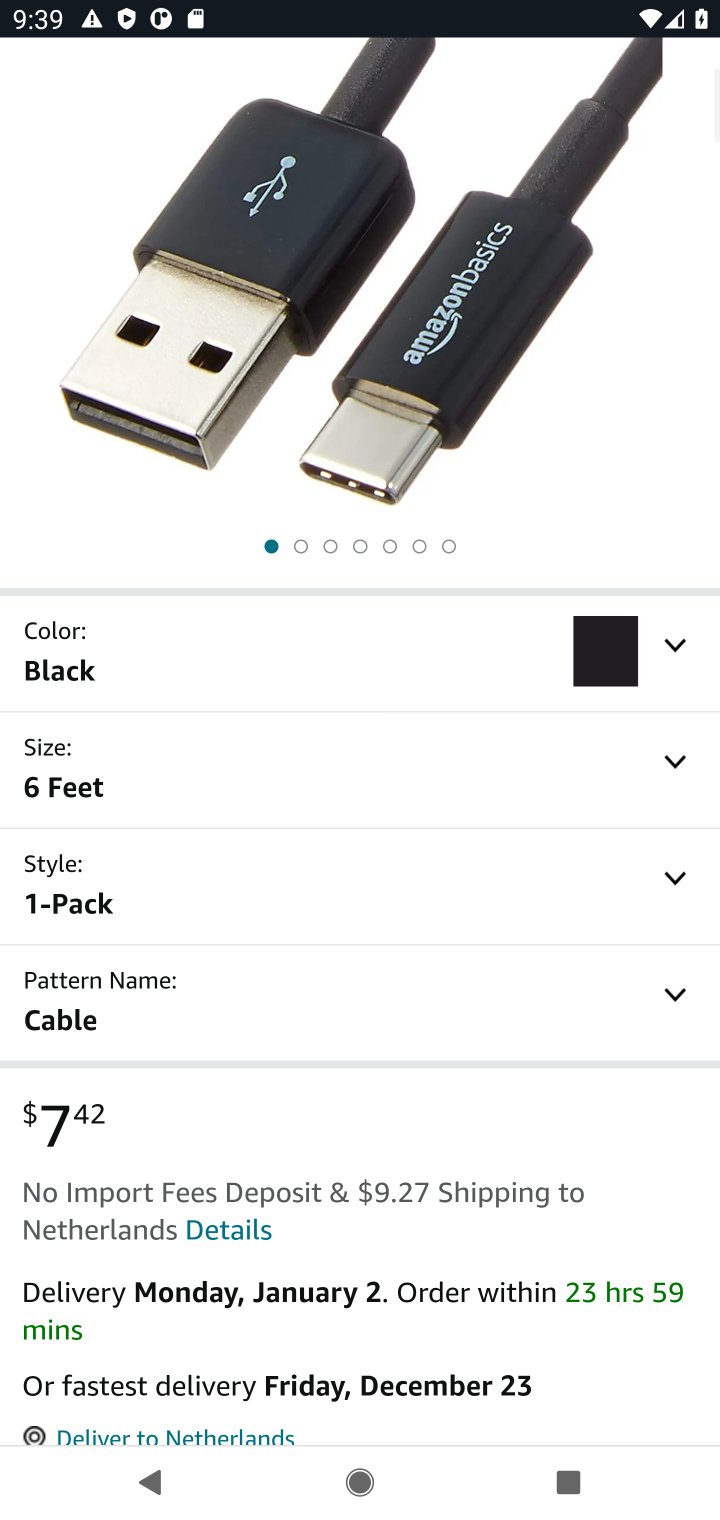
Step 28: drag from (271, 1193) to (339, 468)
Your task to perform on an android device: Clear the cart on amazon. Add "usb-c to usb-a" to the cart on amazon Image 29: 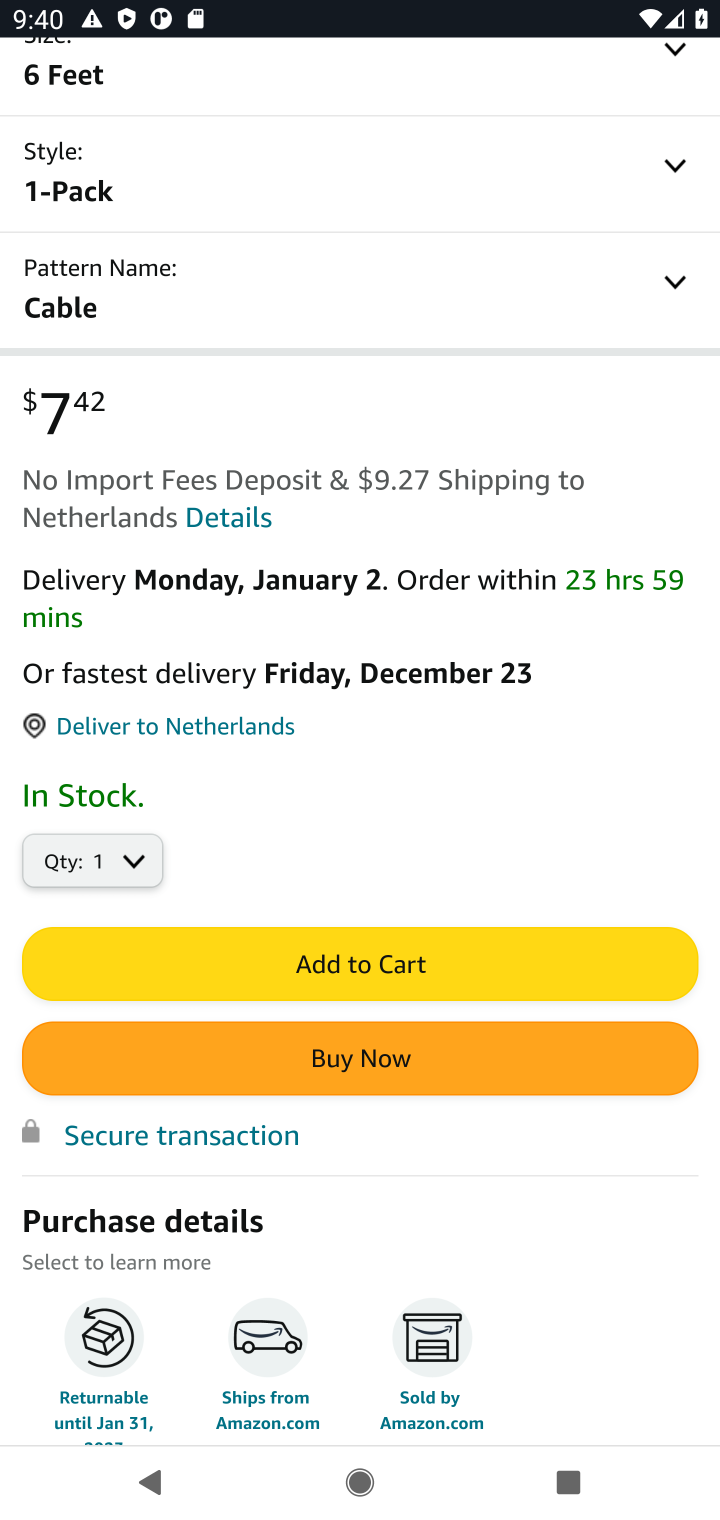
Step 29: click (356, 967)
Your task to perform on an android device: Clear the cart on amazon. Add "usb-c to usb-a" to the cart on amazon Image 30: 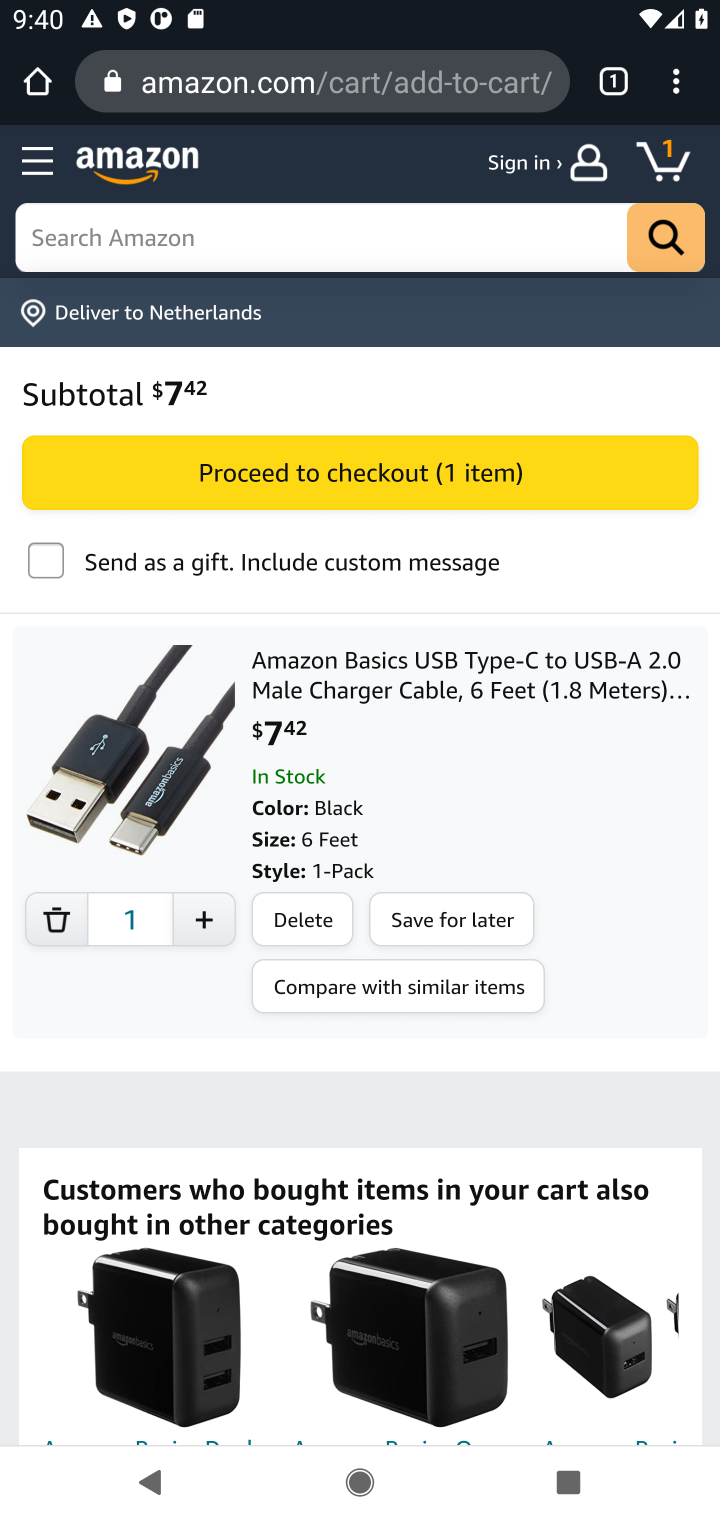
Step 30: task complete